Your task to perform on an android device: search for starred emails in the gmail app Image 0: 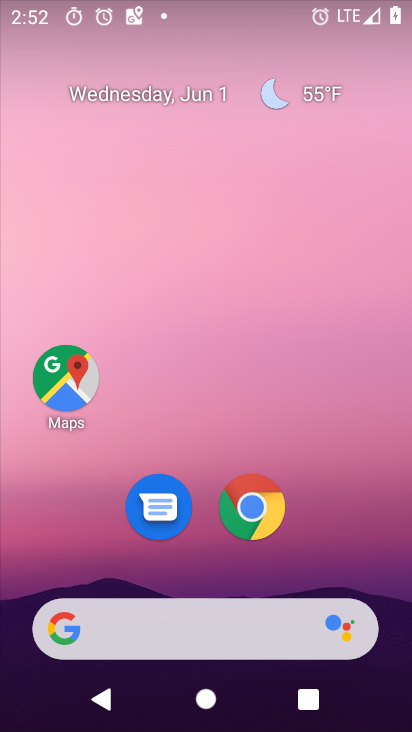
Step 0: drag from (362, 587) to (378, 25)
Your task to perform on an android device: search for starred emails in the gmail app Image 1: 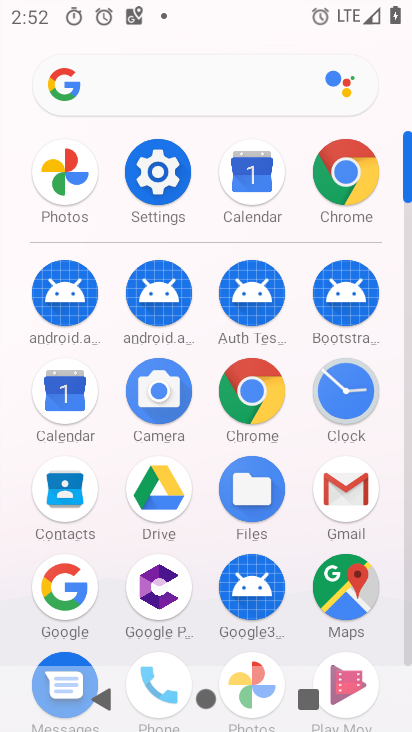
Step 1: click (352, 491)
Your task to perform on an android device: search for starred emails in the gmail app Image 2: 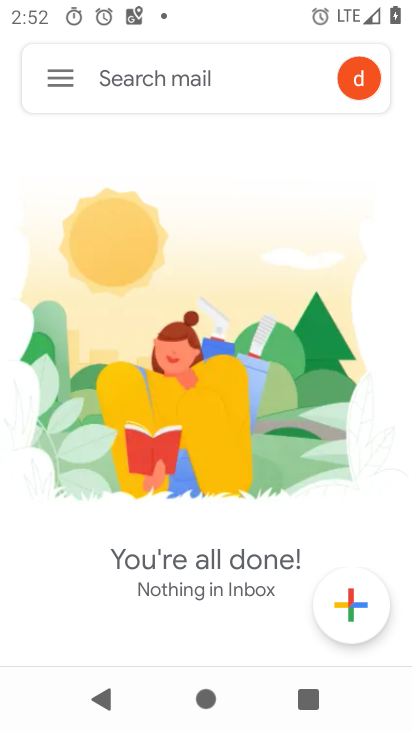
Step 2: click (60, 87)
Your task to perform on an android device: search for starred emails in the gmail app Image 3: 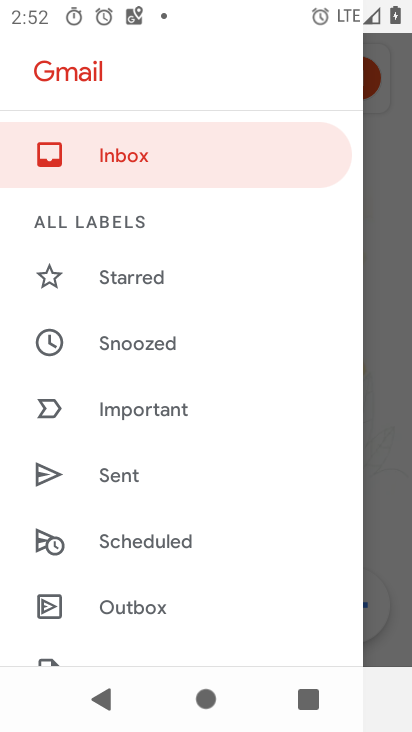
Step 3: click (234, 508)
Your task to perform on an android device: search for starred emails in the gmail app Image 4: 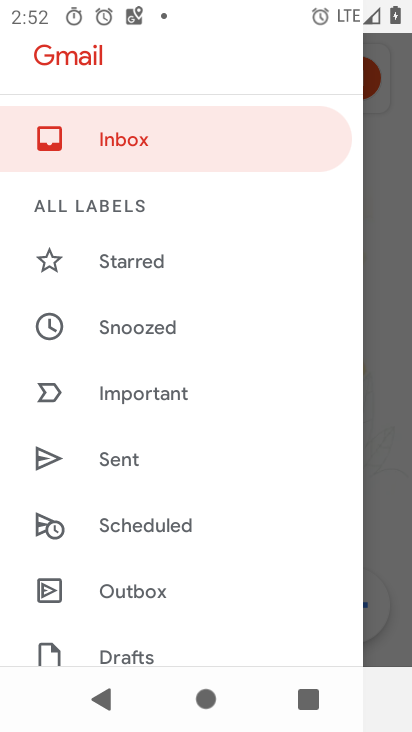
Step 4: click (128, 259)
Your task to perform on an android device: search for starred emails in the gmail app Image 5: 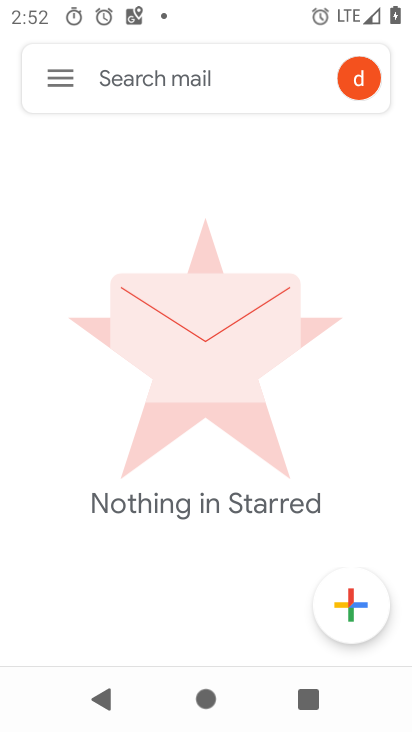
Step 5: task complete